Your task to perform on an android device: Turn on the flashlight Image 0: 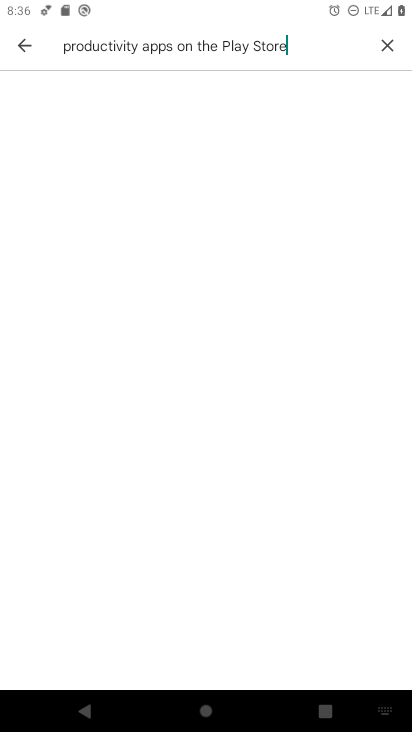
Step 0: press home button
Your task to perform on an android device: Turn on the flashlight Image 1: 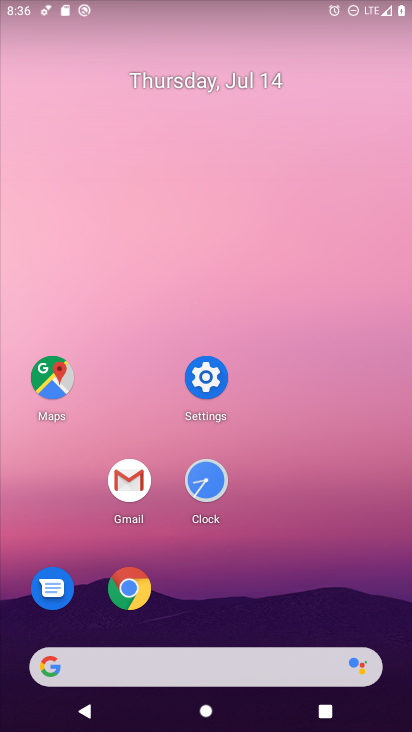
Step 1: click (212, 383)
Your task to perform on an android device: Turn on the flashlight Image 2: 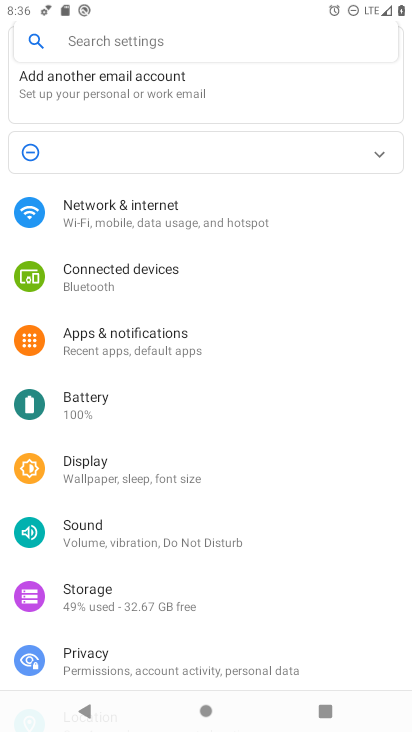
Step 2: click (87, 469)
Your task to perform on an android device: Turn on the flashlight Image 3: 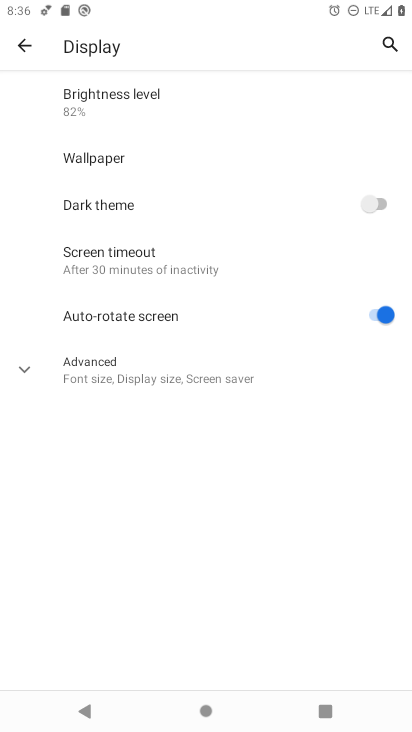
Step 3: click (95, 262)
Your task to perform on an android device: Turn on the flashlight Image 4: 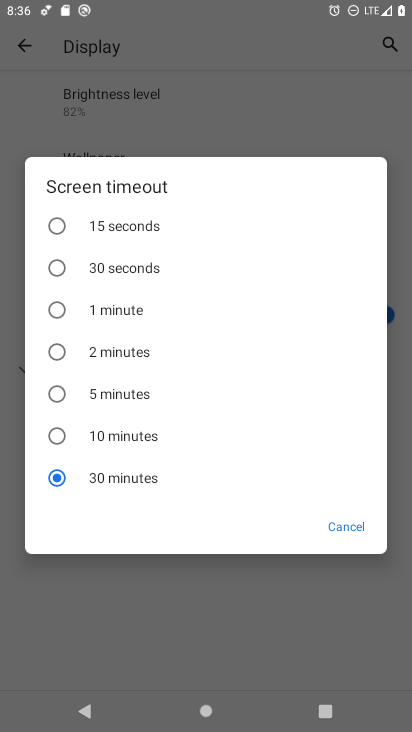
Step 4: click (330, 528)
Your task to perform on an android device: Turn on the flashlight Image 5: 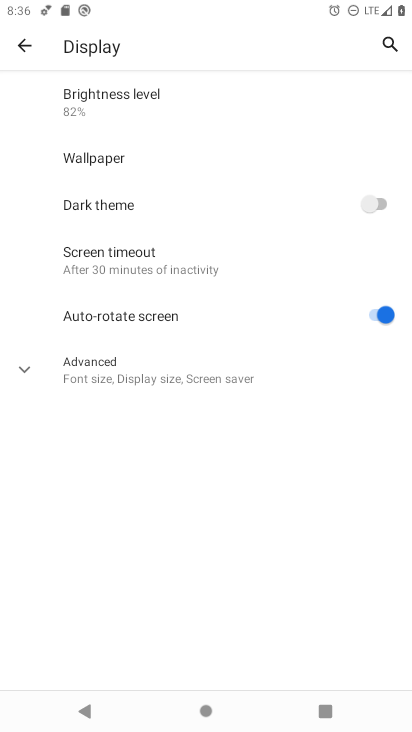
Step 5: click (33, 363)
Your task to perform on an android device: Turn on the flashlight Image 6: 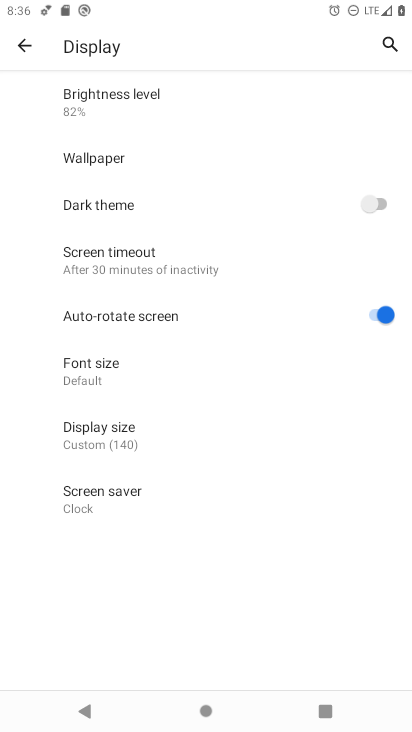
Step 6: task complete